Your task to perform on an android device: Go to accessibility settings Image 0: 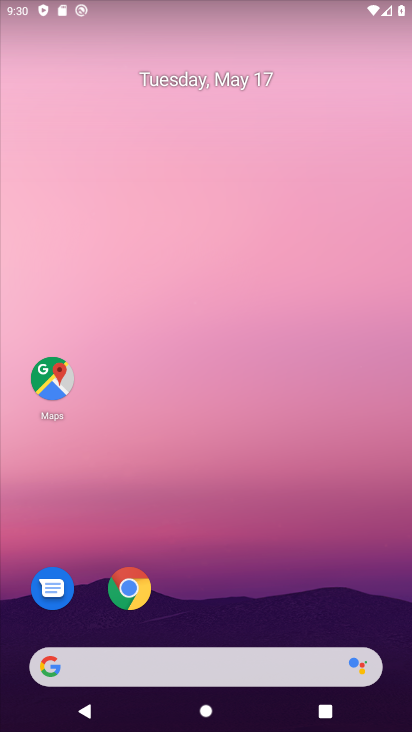
Step 0: drag from (232, 730) to (234, 7)
Your task to perform on an android device: Go to accessibility settings Image 1: 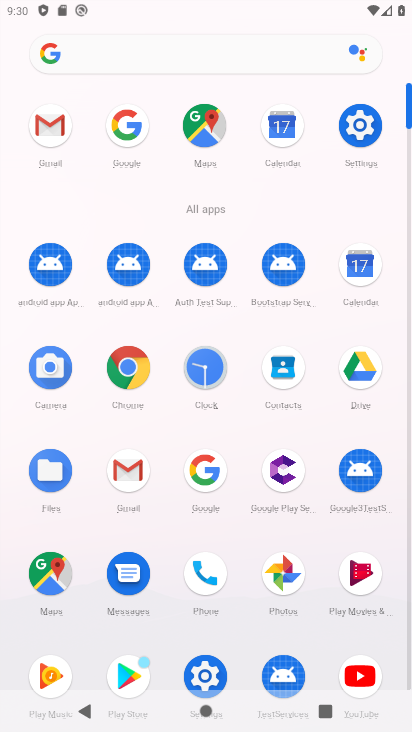
Step 1: click (356, 124)
Your task to perform on an android device: Go to accessibility settings Image 2: 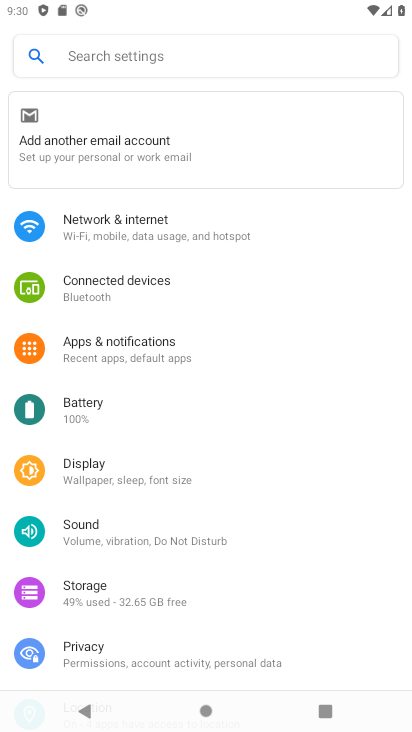
Step 2: drag from (191, 639) to (191, 502)
Your task to perform on an android device: Go to accessibility settings Image 3: 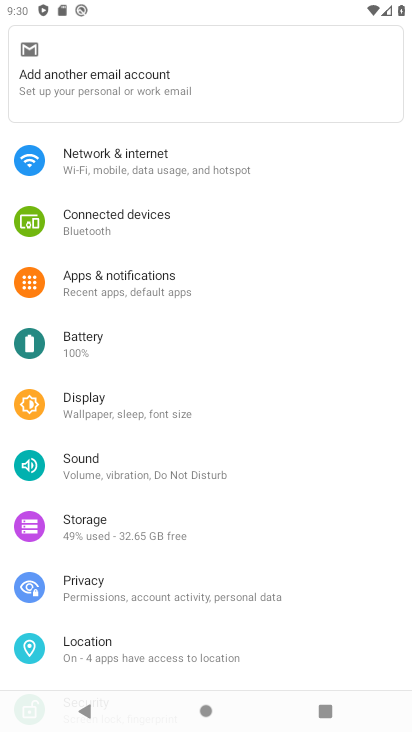
Step 3: drag from (191, 368) to (191, 197)
Your task to perform on an android device: Go to accessibility settings Image 4: 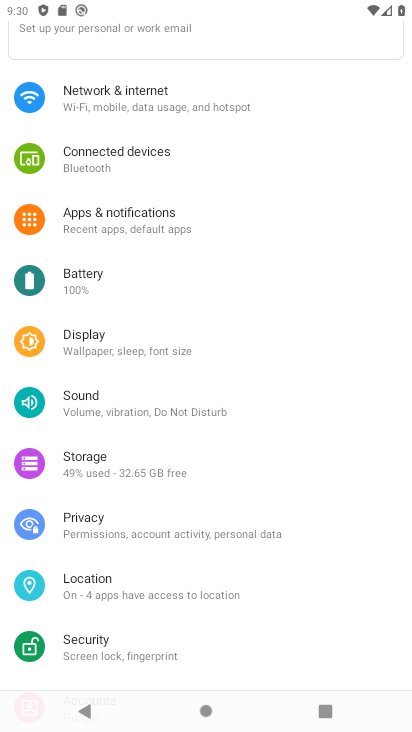
Step 4: drag from (158, 617) to (173, 208)
Your task to perform on an android device: Go to accessibility settings Image 5: 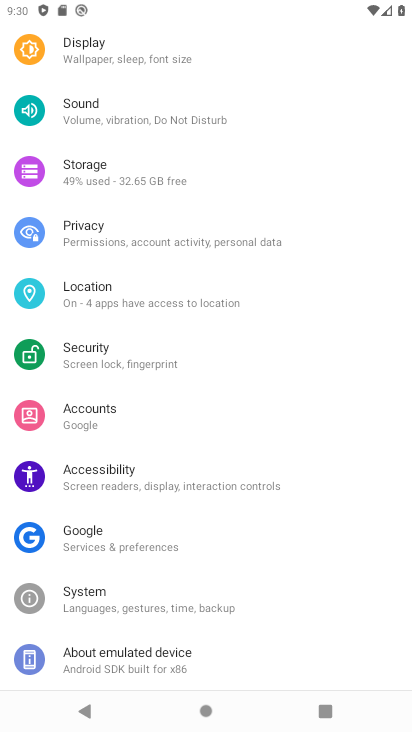
Step 5: drag from (152, 622) to (151, 177)
Your task to perform on an android device: Go to accessibility settings Image 6: 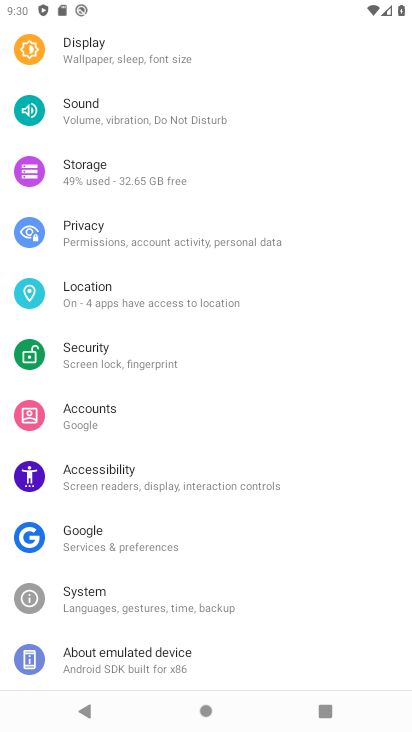
Step 6: click (94, 472)
Your task to perform on an android device: Go to accessibility settings Image 7: 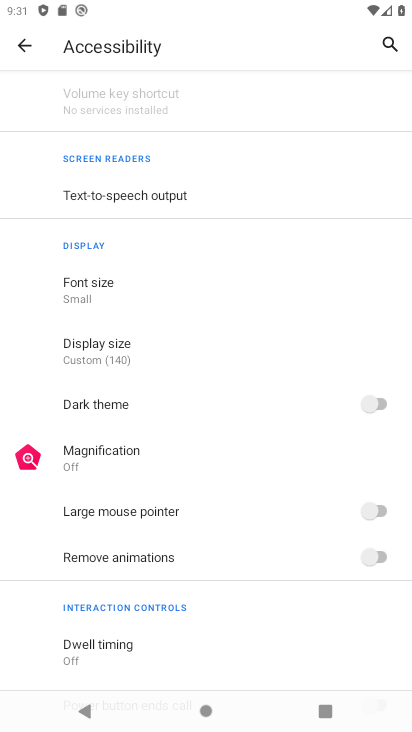
Step 7: task complete